Your task to perform on an android device: Open my contact list Image 0: 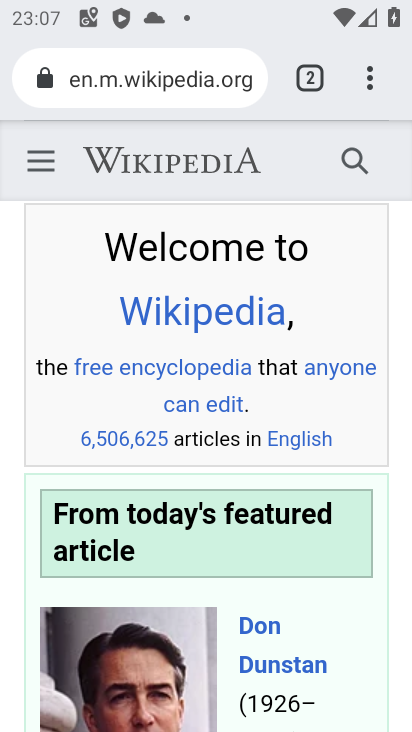
Step 0: press home button
Your task to perform on an android device: Open my contact list Image 1: 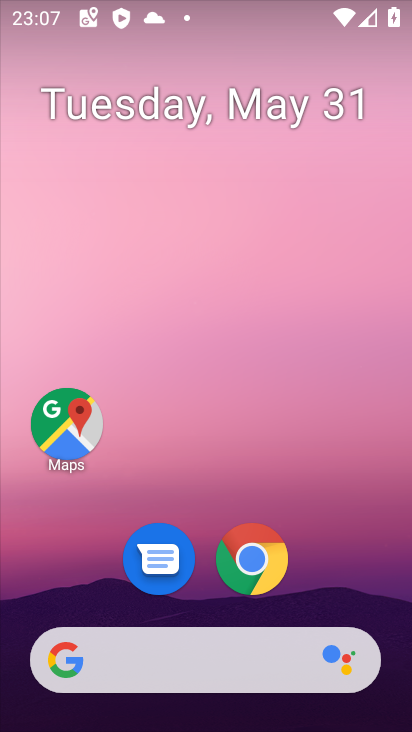
Step 1: drag from (324, 556) to (303, 30)
Your task to perform on an android device: Open my contact list Image 2: 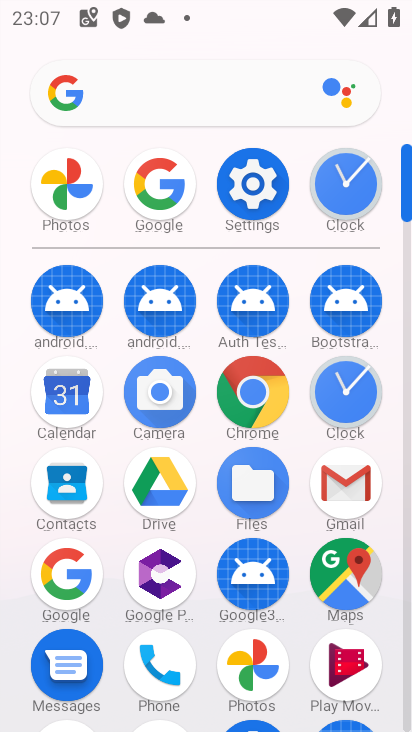
Step 2: drag from (297, 558) to (305, 321)
Your task to perform on an android device: Open my contact list Image 3: 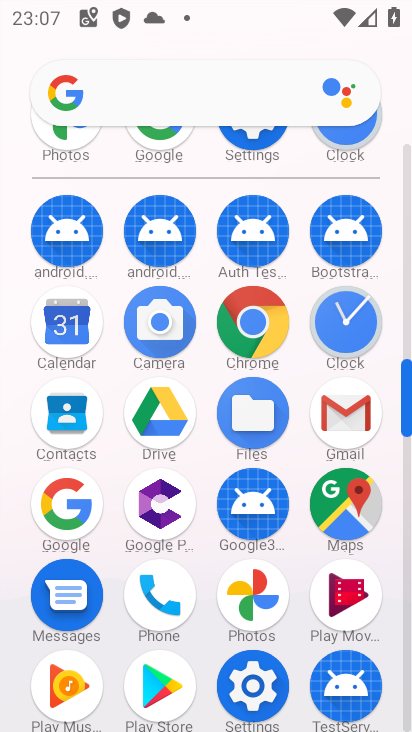
Step 3: click (61, 396)
Your task to perform on an android device: Open my contact list Image 4: 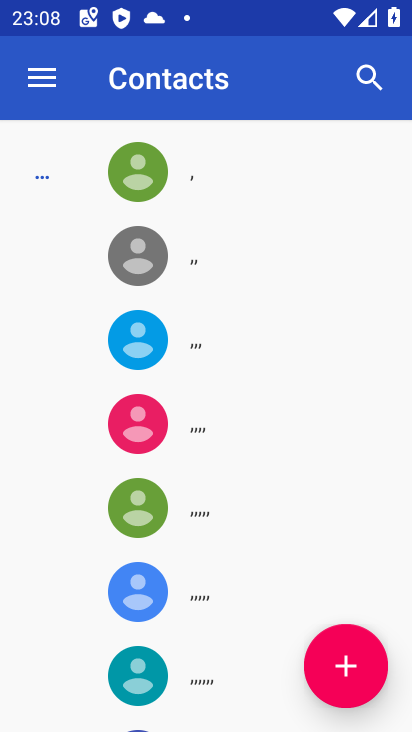
Step 4: task complete